Your task to perform on an android device: open chrome privacy settings Image 0: 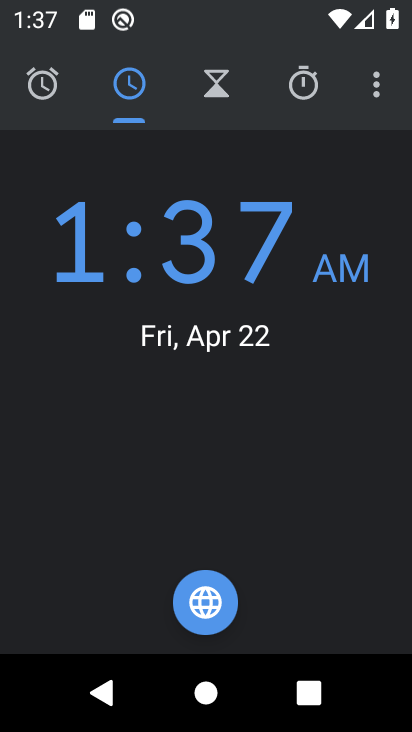
Step 0: press home button
Your task to perform on an android device: open chrome privacy settings Image 1: 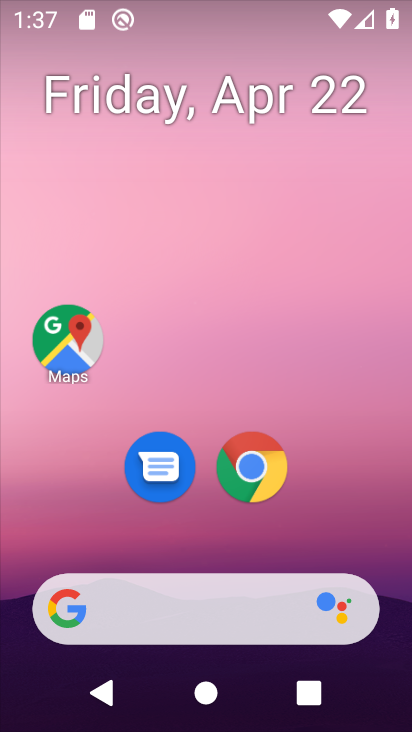
Step 1: drag from (344, 491) to (351, 123)
Your task to perform on an android device: open chrome privacy settings Image 2: 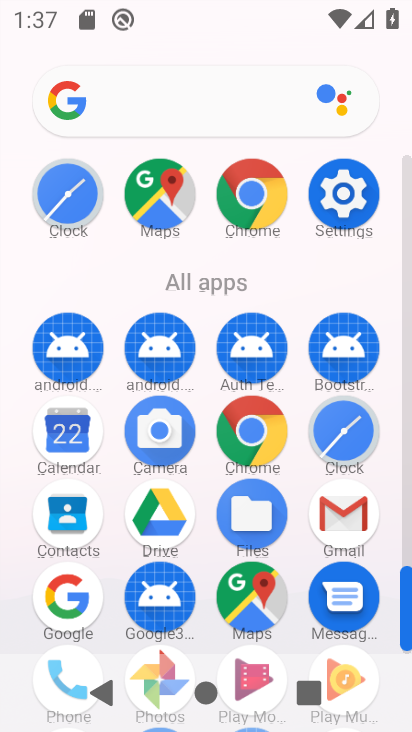
Step 2: click (348, 214)
Your task to perform on an android device: open chrome privacy settings Image 3: 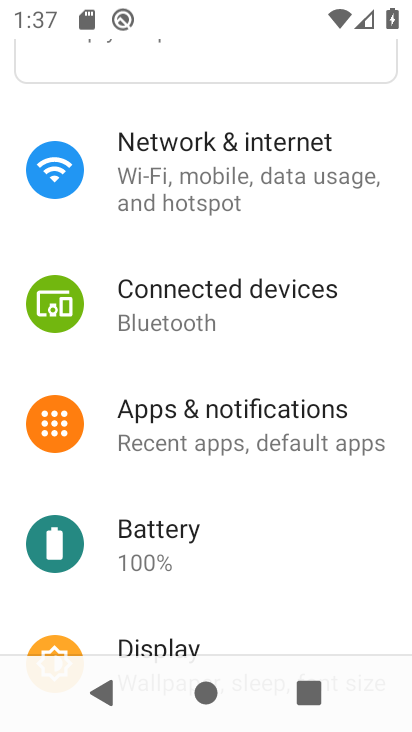
Step 3: drag from (215, 597) to (220, 141)
Your task to perform on an android device: open chrome privacy settings Image 4: 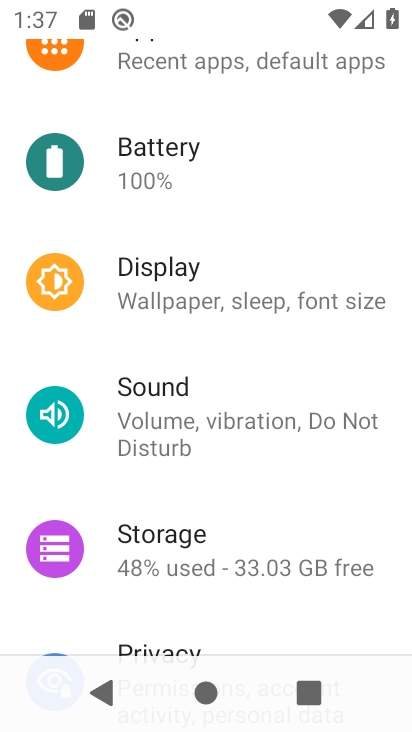
Step 4: drag from (213, 642) to (247, 382)
Your task to perform on an android device: open chrome privacy settings Image 5: 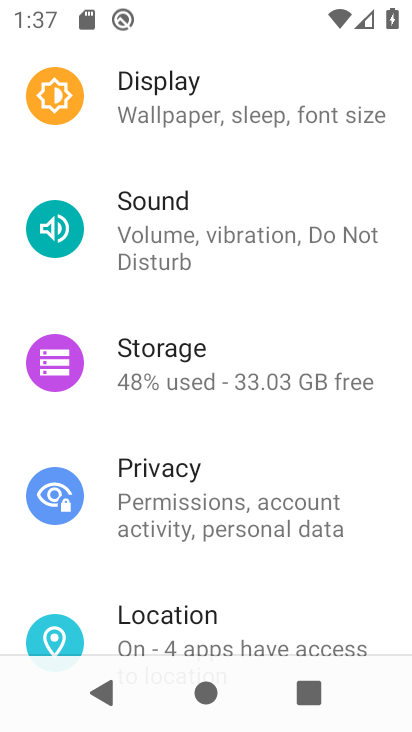
Step 5: click (237, 514)
Your task to perform on an android device: open chrome privacy settings Image 6: 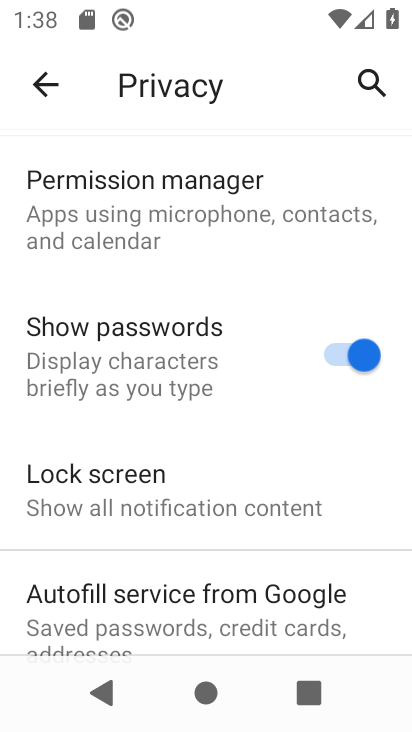
Step 6: task complete